Your task to perform on an android device: Open the stopwatch Image 0: 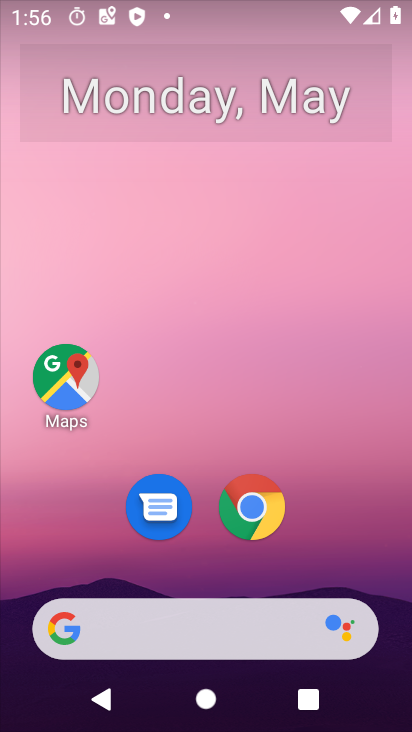
Step 0: drag from (323, 579) to (324, 204)
Your task to perform on an android device: Open the stopwatch Image 1: 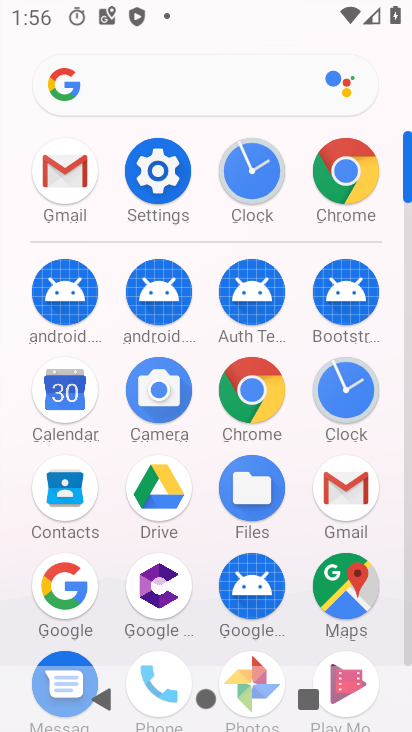
Step 1: click (250, 187)
Your task to perform on an android device: Open the stopwatch Image 2: 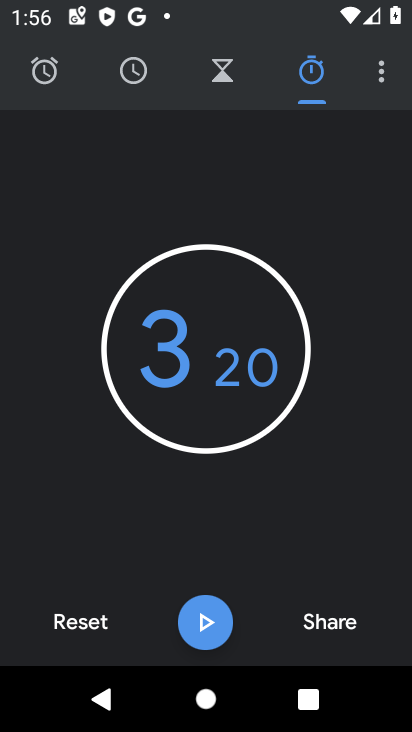
Step 2: click (107, 630)
Your task to perform on an android device: Open the stopwatch Image 3: 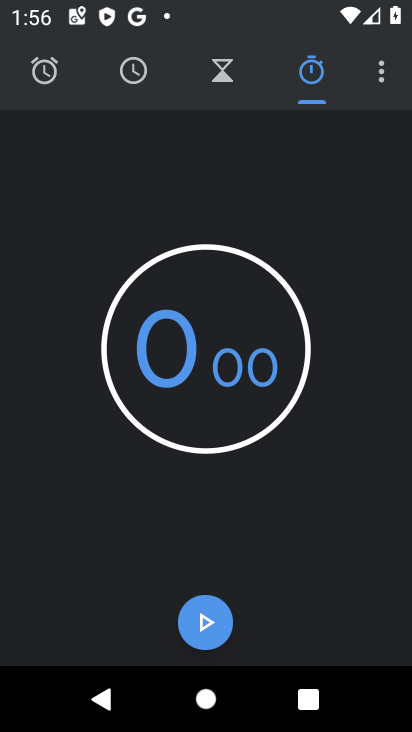
Step 3: click (207, 621)
Your task to perform on an android device: Open the stopwatch Image 4: 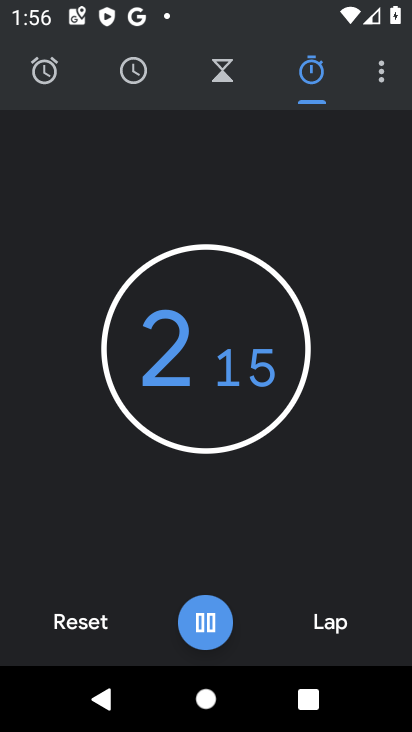
Step 4: click (208, 621)
Your task to perform on an android device: Open the stopwatch Image 5: 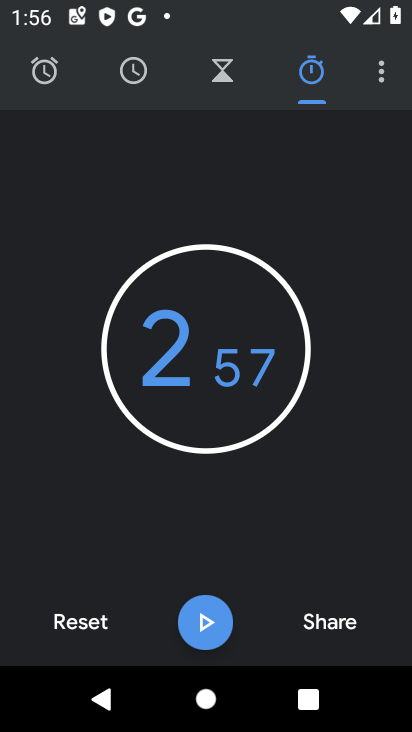
Step 5: task complete